Your task to perform on an android device: toggle pop-ups in chrome Image 0: 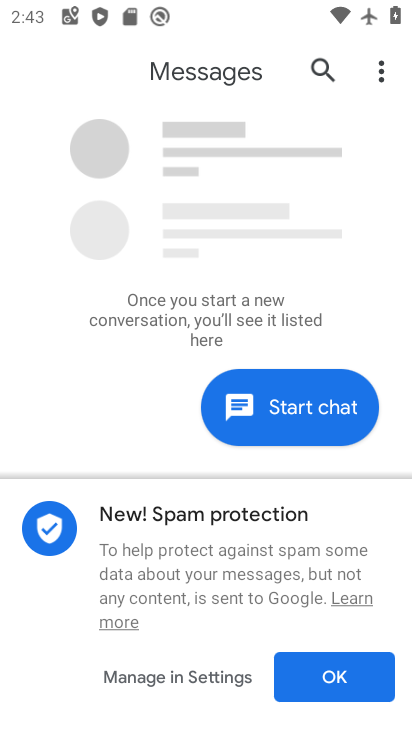
Step 0: press home button
Your task to perform on an android device: toggle pop-ups in chrome Image 1: 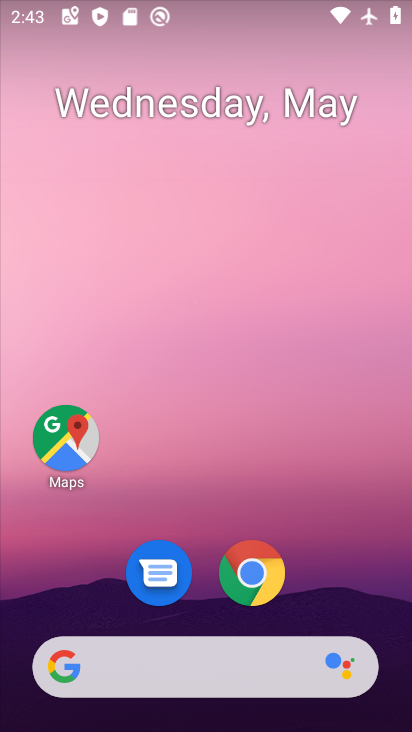
Step 1: click (242, 568)
Your task to perform on an android device: toggle pop-ups in chrome Image 2: 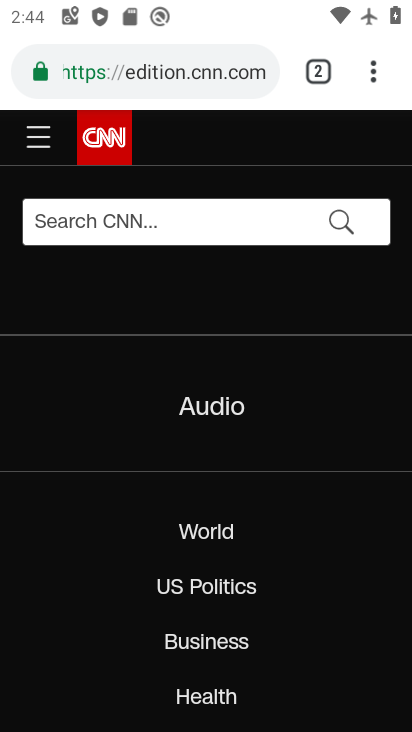
Step 2: click (383, 77)
Your task to perform on an android device: toggle pop-ups in chrome Image 3: 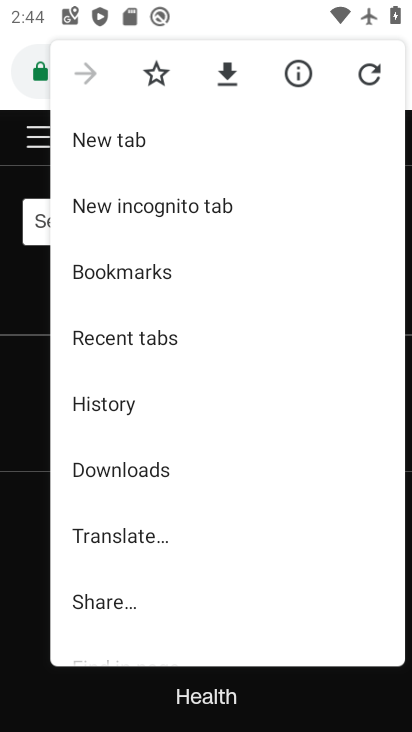
Step 3: drag from (193, 598) to (217, 316)
Your task to perform on an android device: toggle pop-ups in chrome Image 4: 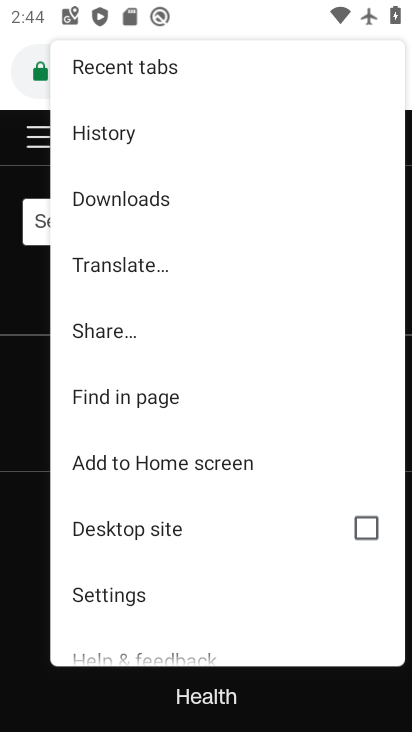
Step 4: click (140, 591)
Your task to perform on an android device: toggle pop-ups in chrome Image 5: 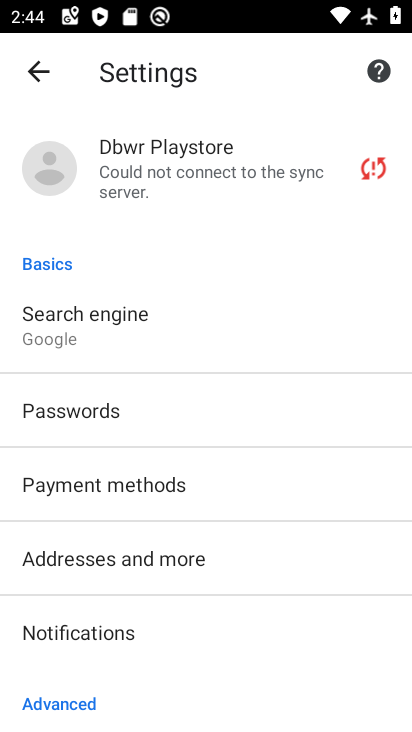
Step 5: drag from (184, 675) to (280, 346)
Your task to perform on an android device: toggle pop-ups in chrome Image 6: 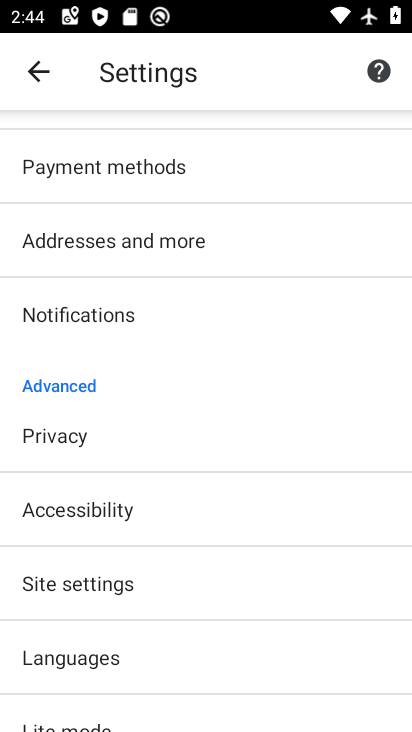
Step 6: click (116, 580)
Your task to perform on an android device: toggle pop-ups in chrome Image 7: 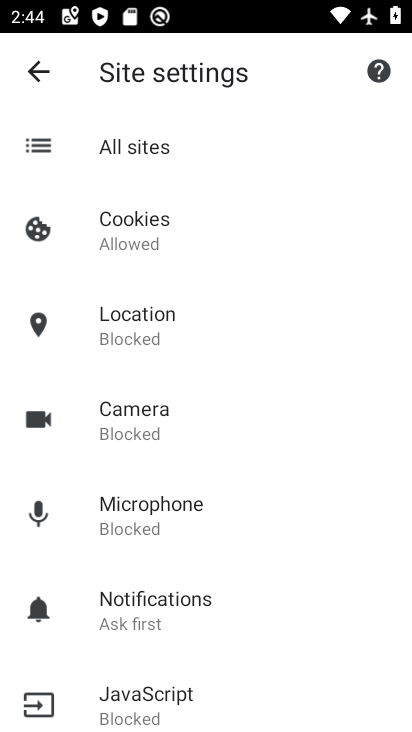
Step 7: drag from (164, 660) to (179, 479)
Your task to perform on an android device: toggle pop-ups in chrome Image 8: 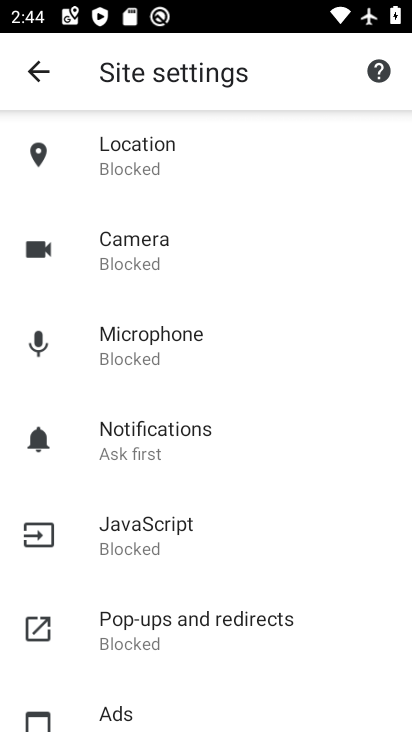
Step 8: click (169, 639)
Your task to perform on an android device: toggle pop-ups in chrome Image 9: 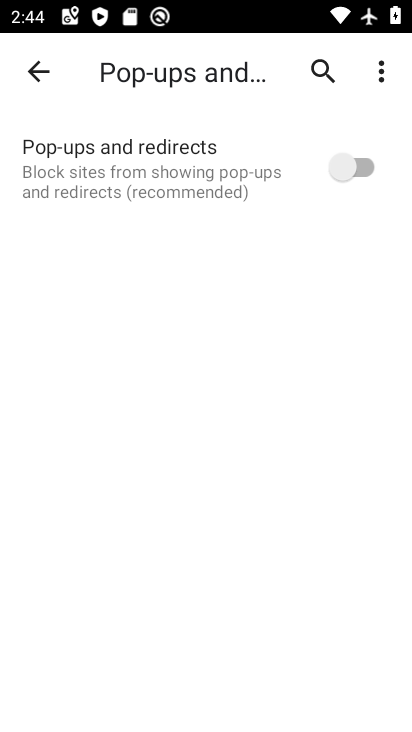
Step 9: click (353, 155)
Your task to perform on an android device: toggle pop-ups in chrome Image 10: 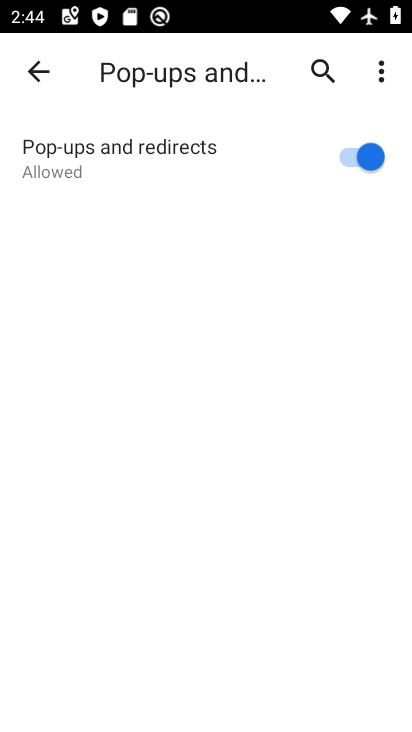
Step 10: task complete